Your task to perform on an android device: open the mobile data screen to see how much data has been used Image 0: 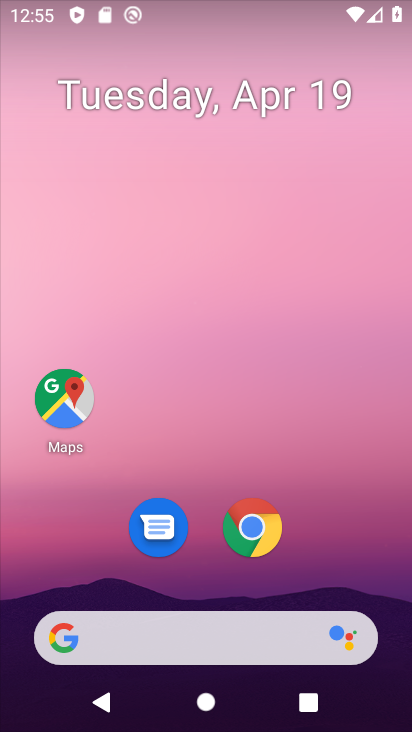
Step 0: drag from (178, 9) to (156, 475)
Your task to perform on an android device: open the mobile data screen to see how much data has been used Image 1: 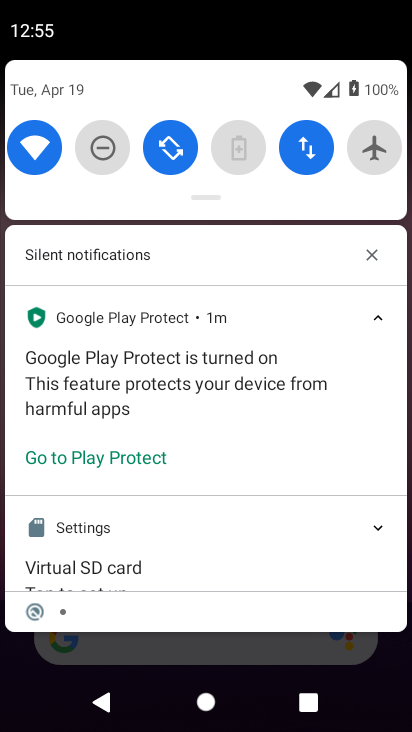
Step 1: click (314, 147)
Your task to perform on an android device: open the mobile data screen to see how much data has been used Image 2: 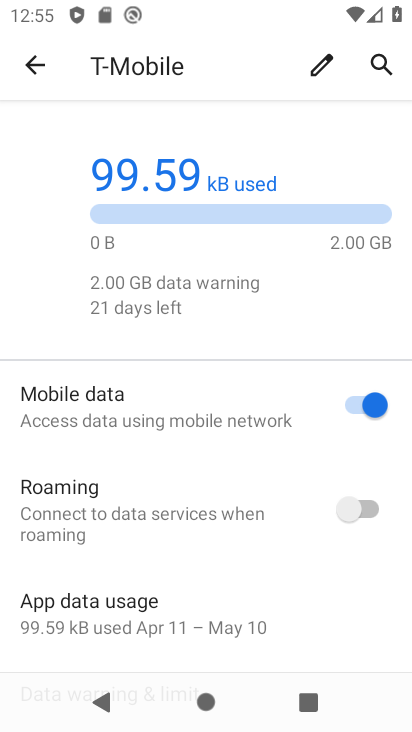
Step 2: task complete